Your task to perform on an android device: turn on the 24-hour format for clock Image 0: 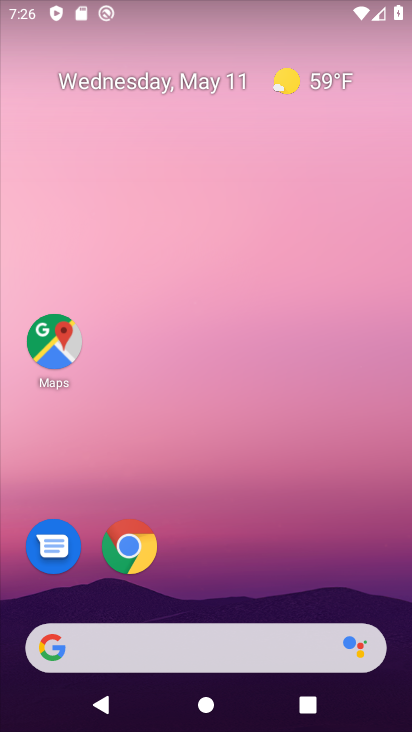
Step 0: drag from (307, 568) to (292, 191)
Your task to perform on an android device: turn on the 24-hour format for clock Image 1: 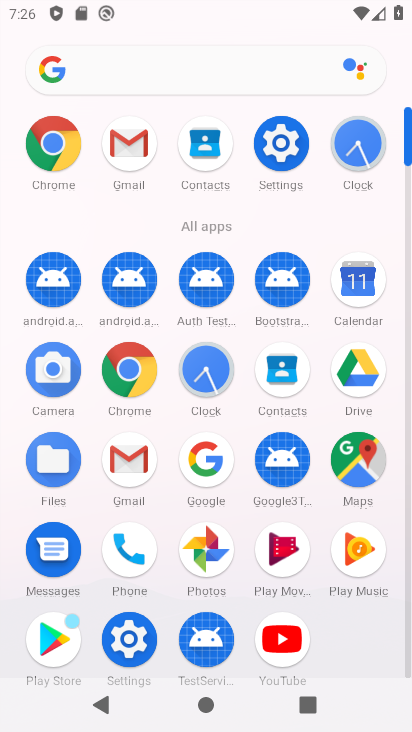
Step 1: click (212, 382)
Your task to perform on an android device: turn on the 24-hour format for clock Image 2: 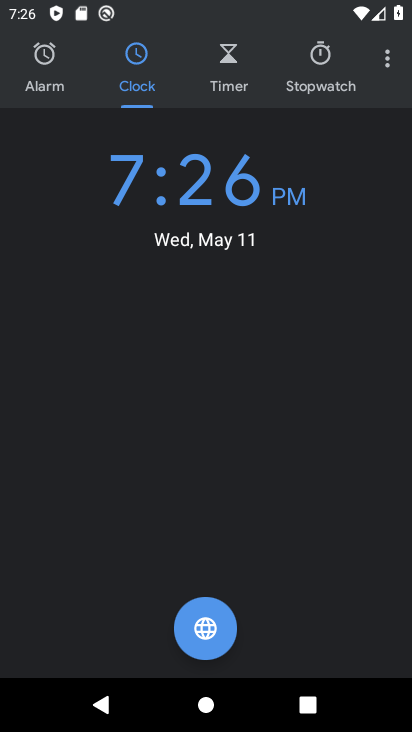
Step 2: click (387, 77)
Your task to perform on an android device: turn on the 24-hour format for clock Image 3: 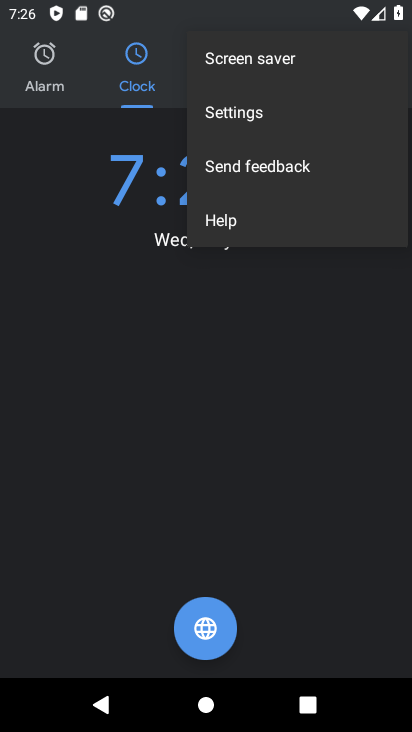
Step 3: click (236, 124)
Your task to perform on an android device: turn on the 24-hour format for clock Image 4: 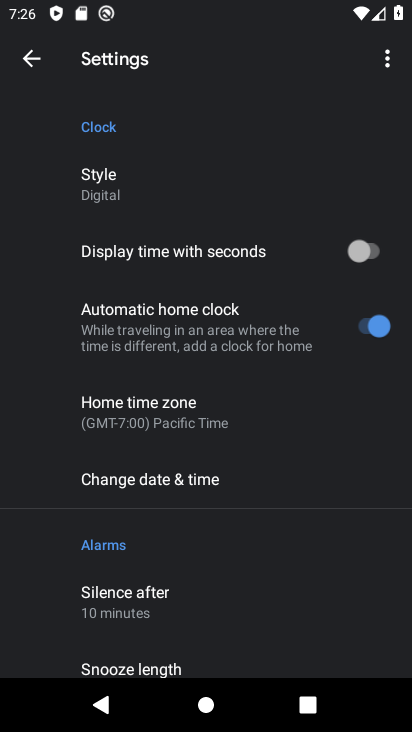
Step 4: click (213, 489)
Your task to perform on an android device: turn on the 24-hour format for clock Image 5: 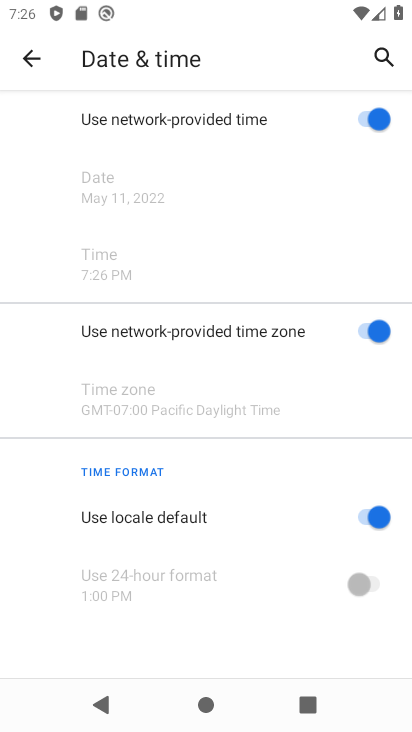
Step 5: click (373, 523)
Your task to perform on an android device: turn on the 24-hour format for clock Image 6: 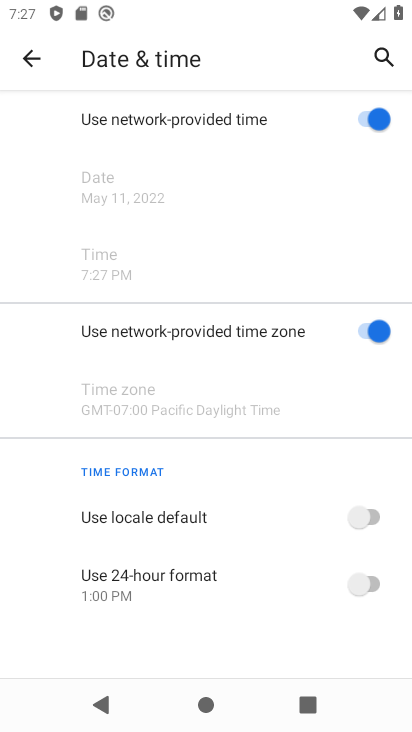
Step 6: click (361, 582)
Your task to perform on an android device: turn on the 24-hour format for clock Image 7: 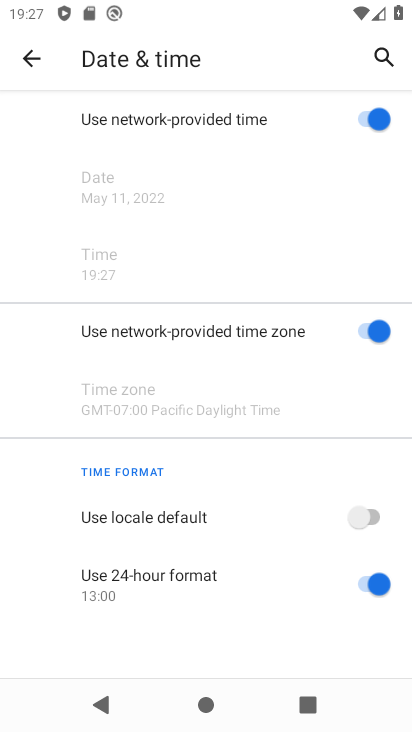
Step 7: task complete